Your task to perform on an android device: Search for pizza restaurants on Maps Image 0: 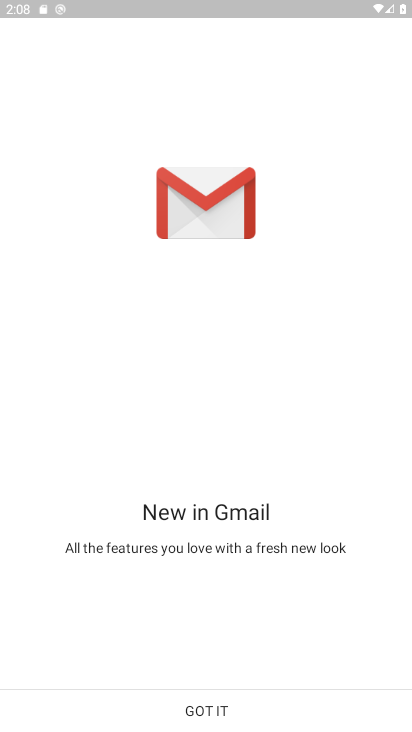
Step 0: press home button
Your task to perform on an android device: Search for pizza restaurants on Maps Image 1: 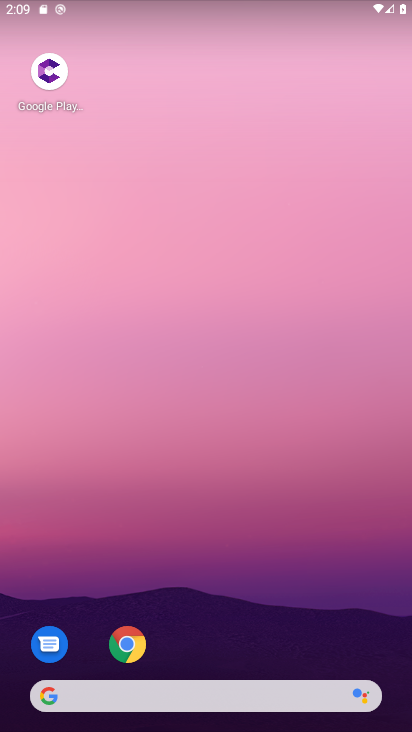
Step 1: drag from (156, 661) to (243, 218)
Your task to perform on an android device: Search for pizza restaurants on Maps Image 2: 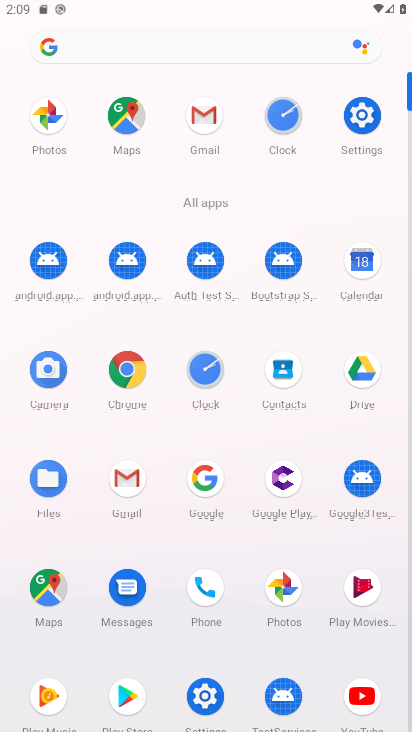
Step 2: click (53, 594)
Your task to perform on an android device: Search for pizza restaurants on Maps Image 3: 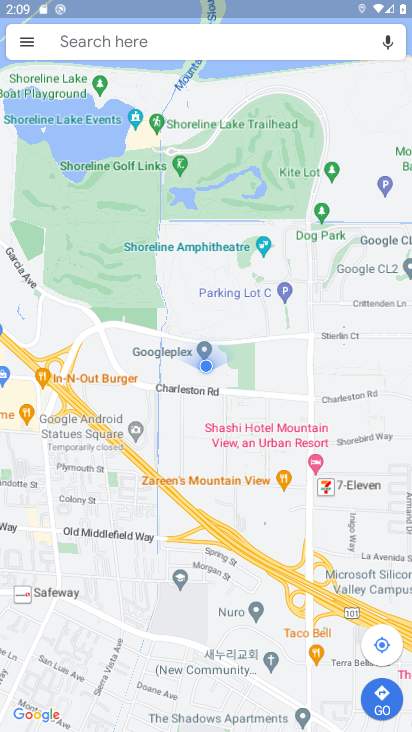
Step 3: click (153, 46)
Your task to perform on an android device: Search for pizza restaurants on Maps Image 4: 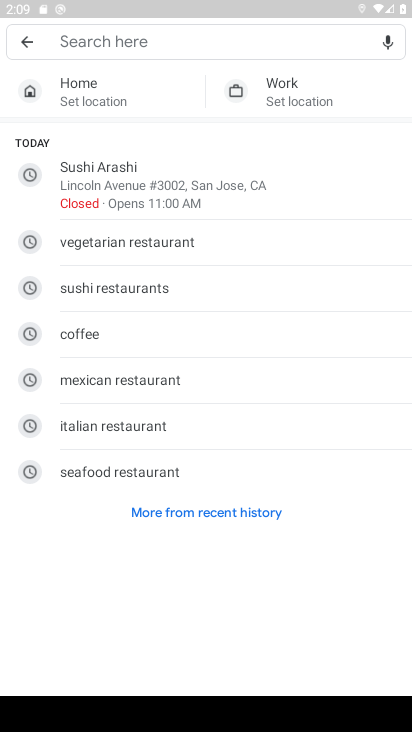
Step 4: type "Pizza restaurants"
Your task to perform on an android device: Search for pizza restaurants on Maps Image 5: 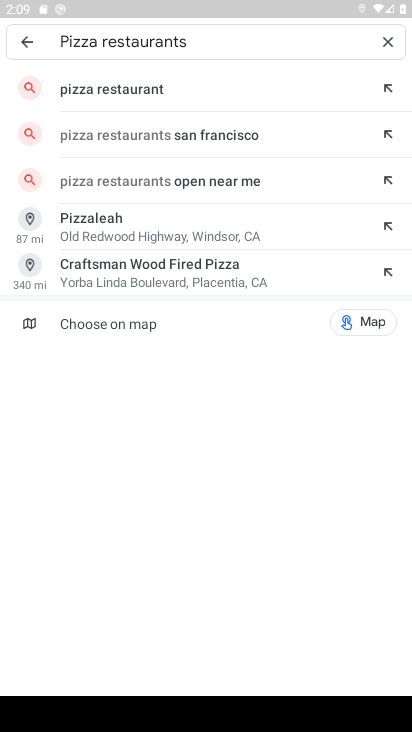
Step 5: click (205, 90)
Your task to perform on an android device: Search for pizza restaurants on Maps Image 6: 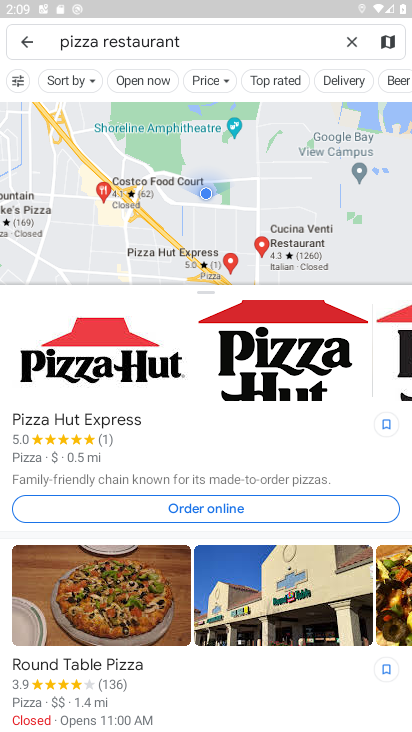
Step 6: task complete